Your task to perform on an android device: toggle notification dots Image 0: 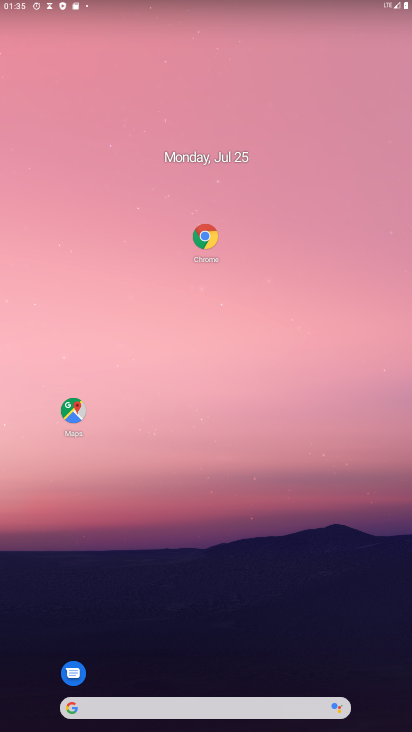
Step 0: drag from (303, 701) to (268, 0)
Your task to perform on an android device: toggle notification dots Image 1: 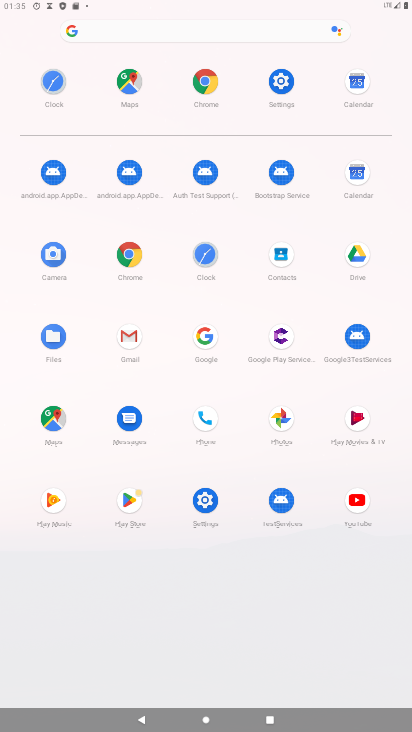
Step 1: click (282, 73)
Your task to perform on an android device: toggle notification dots Image 2: 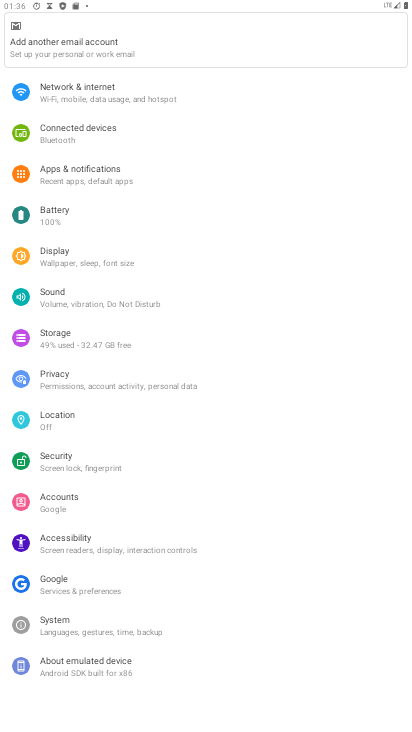
Step 2: click (194, 173)
Your task to perform on an android device: toggle notification dots Image 3: 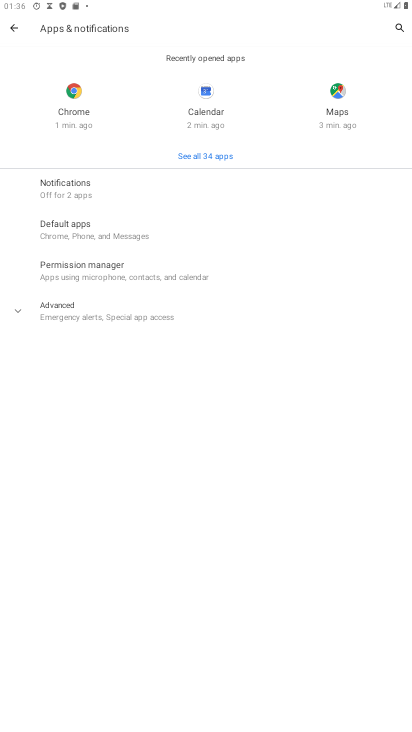
Step 3: click (127, 313)
Your task to perform on an android device: toggle notification dots Image 4: 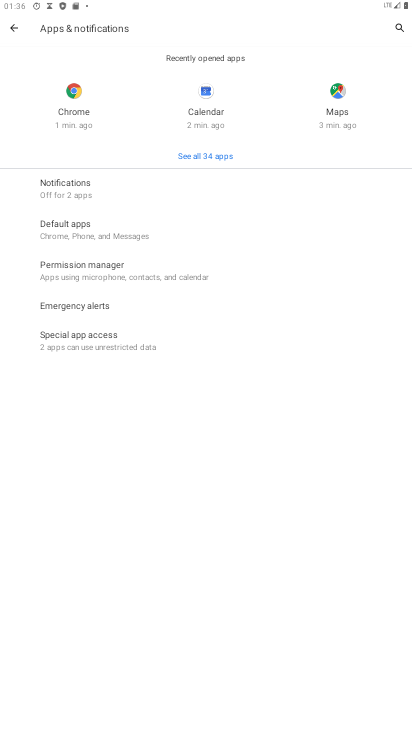
Step 4: click (93, 186)
Your task to perform on an android device: toggle notification dots Image 5: 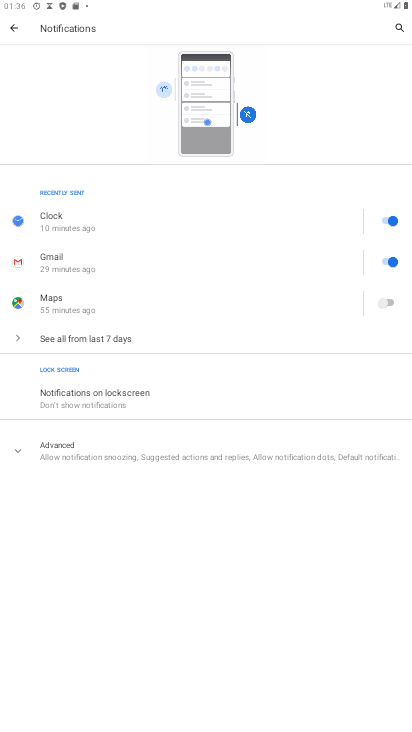
Step 5: click (102, 452)
Your task to perform on an android device: toggle notification dots Image 6: 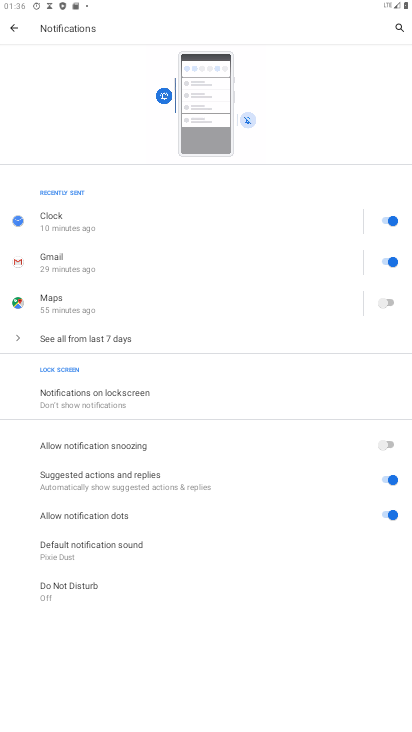
Step 6: click (384, 511)
Your task to perform on an android device: toggle notification dots Image 7: 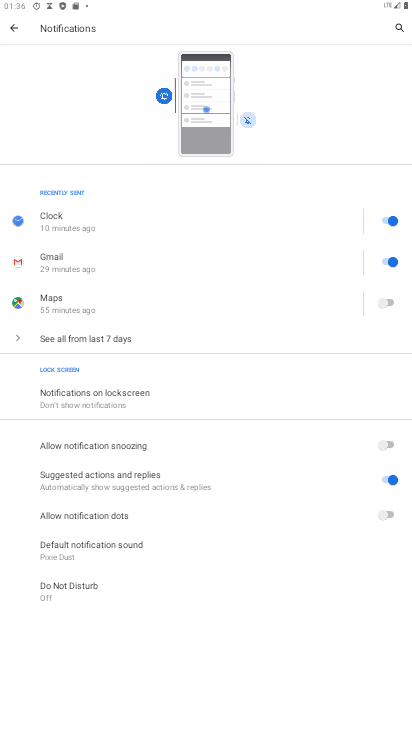
Step 7: task complete